Your task to perform on an android device: What's on my calendar tomorrow? Image 0: 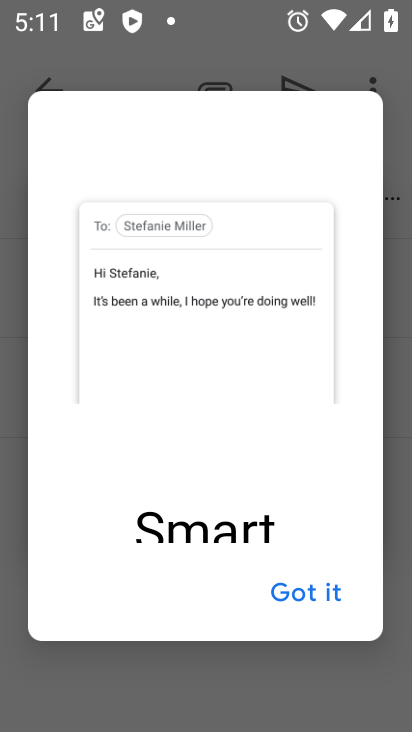
Step 0: press home button
Your task to perform on an android device: What's on my calendar tomorrow? Image 1: 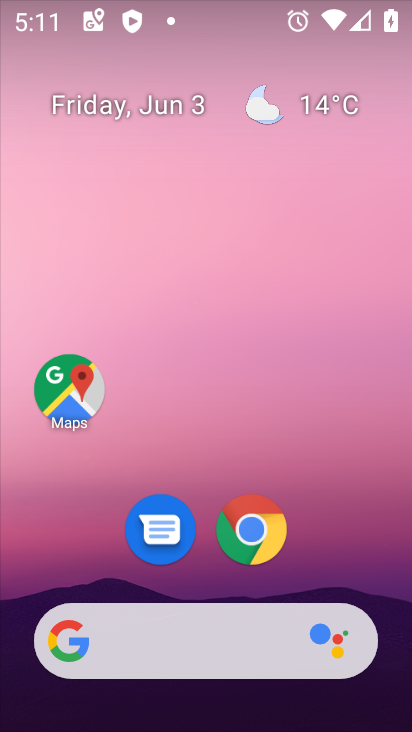
Step 1: drag from (206, 567) to (209, 116)
Your task to perform on an android device: What's on my calendar tomorrow? Image 2: 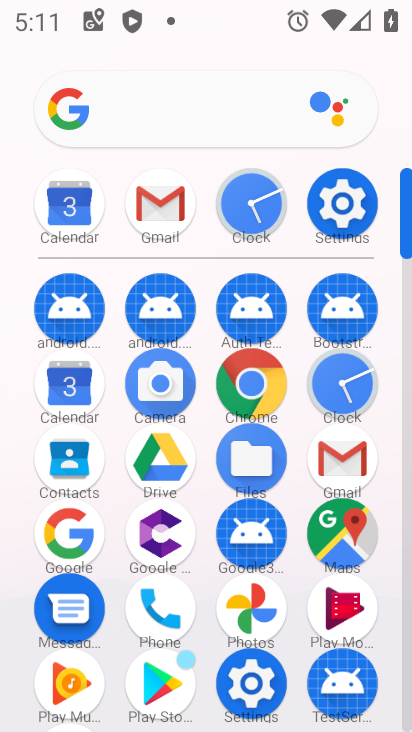
Step 2: click (67, 378)
Your task to perform on an android device: What's on my calendar tomorrow? Image 3: 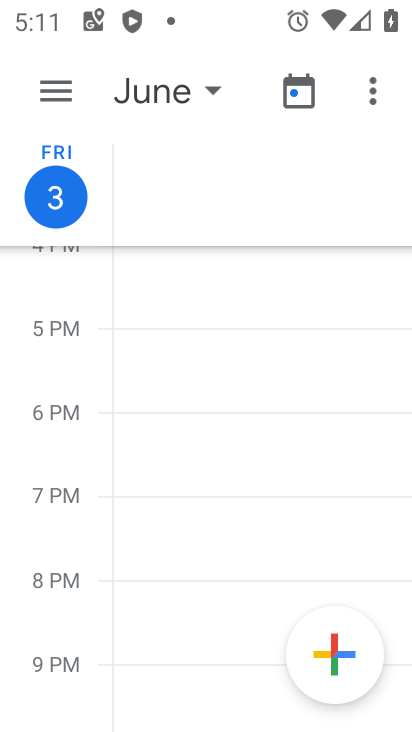
Step 3: drag from (78, 631) to (114, 327)
Your task to perform on an android device: What's on my calendar tomorrow? Image 4: 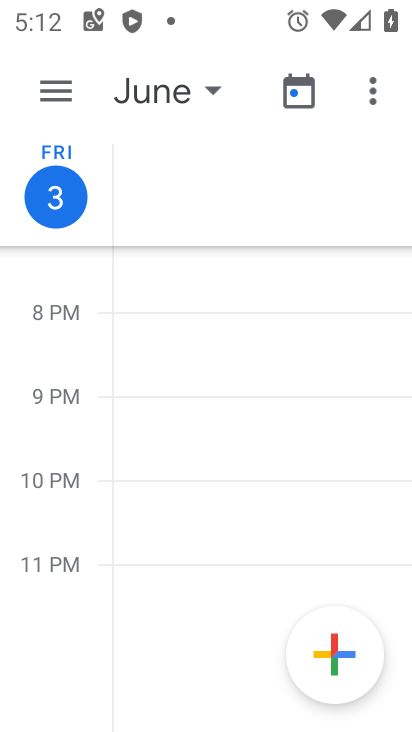
Step 4: click (84, 214)
Your task to perform on an android device: What's on my calendar tomorrow? Image 5: 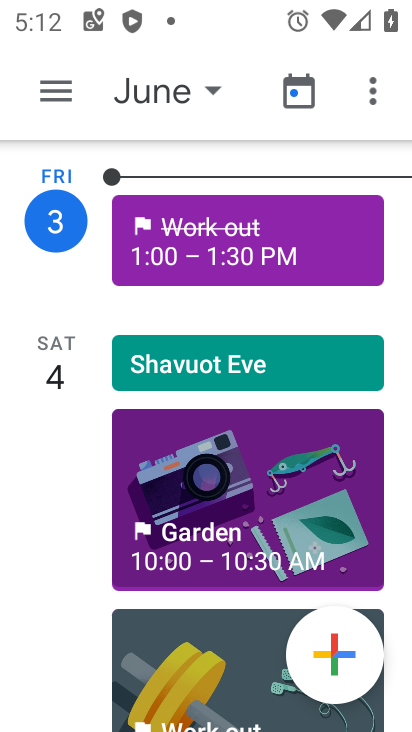
Step 5: click (76, 365)
Your task to perform on an android device: What's on my calendar tomorrow? Image 6: 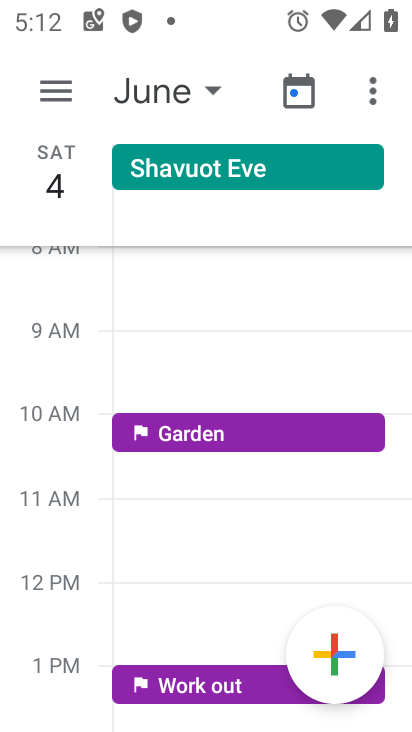
Step 6: task complete